Your task to perform on an android device: make emails show in primary in the gmail app Image 0: 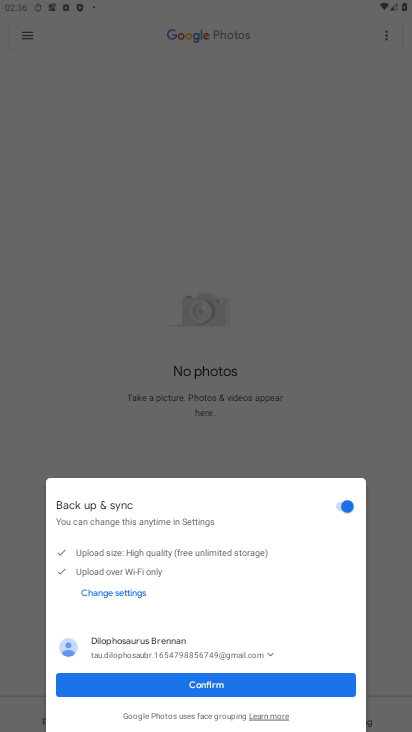
Step 0: press home button
Your task to perform on an android device: make emails show in primary in the gmail app Image 1: 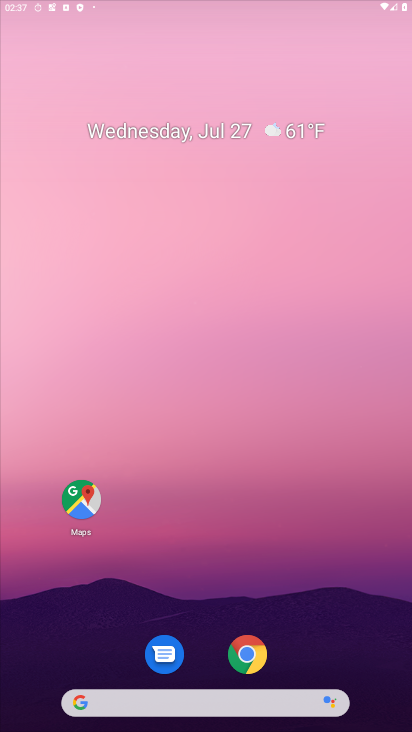
Step 1: drag from (170, 722) to (239, 11)
Your task to perform on an android device: make emails show in primary in the gmail app Image 2: 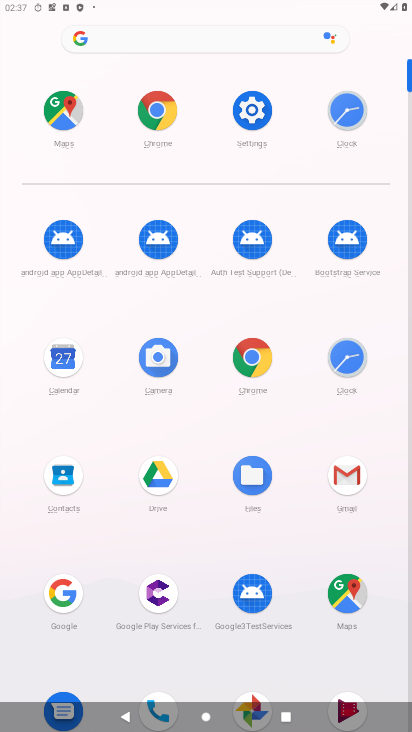
Step 2: click (351, 472)
Your task to perform on an android device: make emails show in primary in the gmail app Image 3: 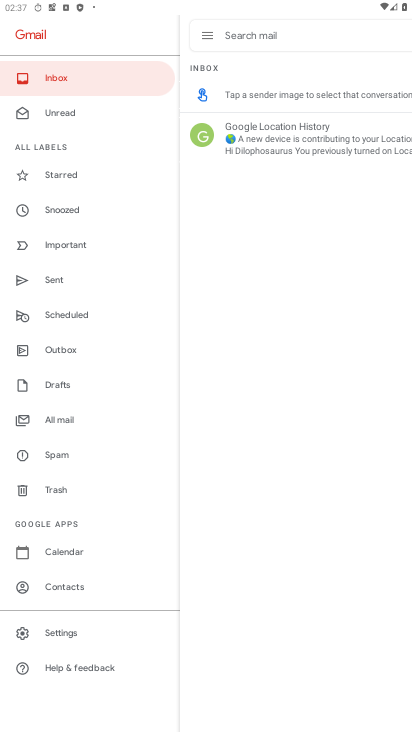
Step 3: click (57, 630)
Your task to perform on an android device: make emails show in primary in the gmail app Image 4: 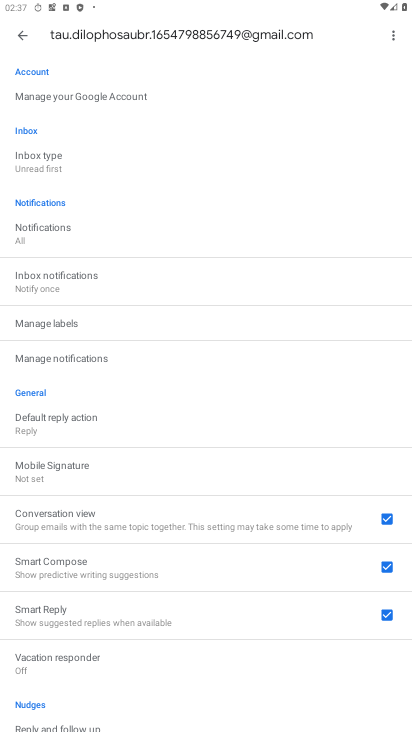
Step 4: click (53, 165)
Your task to perform on an android device: make emails show in primary in the gmail app Image 5: 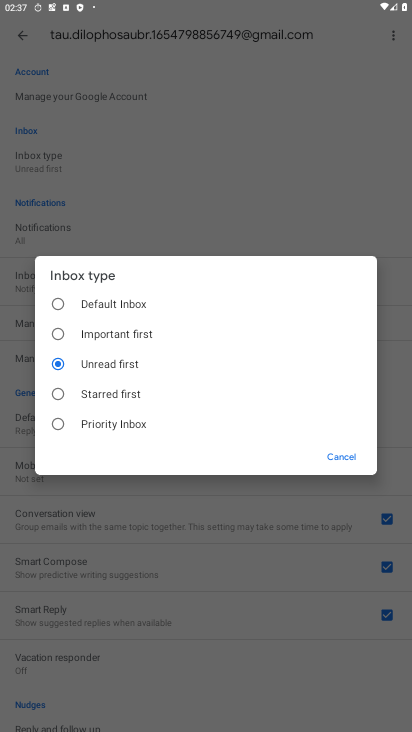
Step 5: click (64, 308)
Your task to perform on an android device: make emails show in primary in the gmail app Image 6: 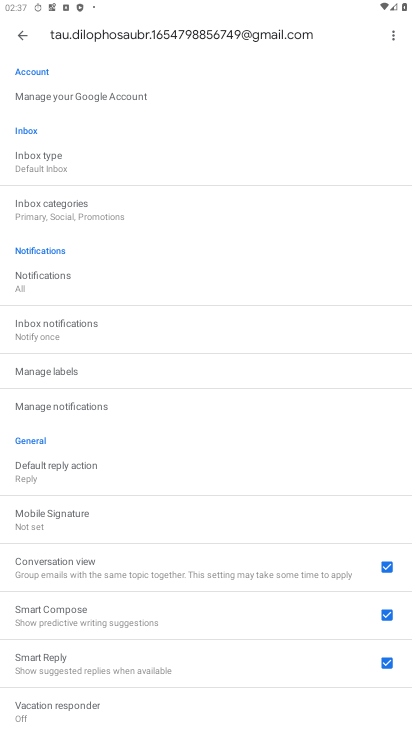
Step 6: task complete